Your task to perform on an android device: toggle improve location accuracy Image 0: 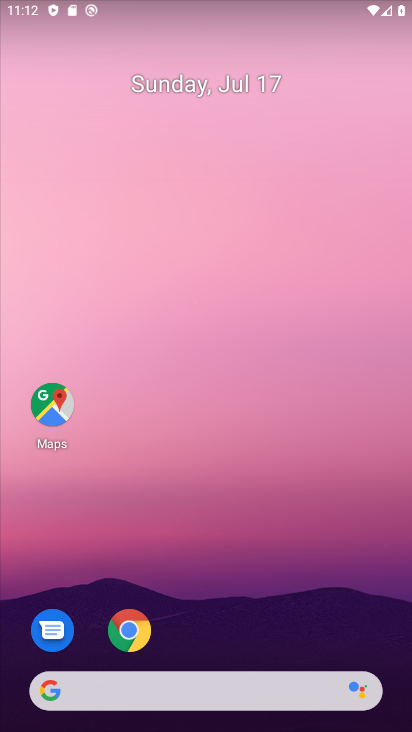
Step 0: drag from (206, 649) to (206, 12)
Your task to perform on an android device: toggle improve location accuracy Image 1: 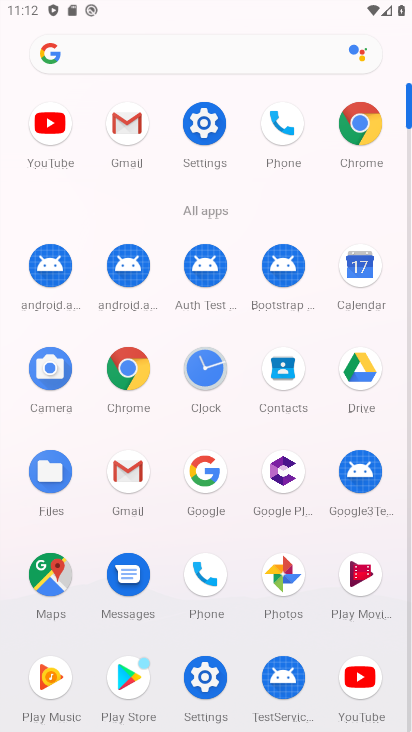
Step 1: click (212, 681)
Your task to perform on an android device: toggle improve location accuracy Image 2: 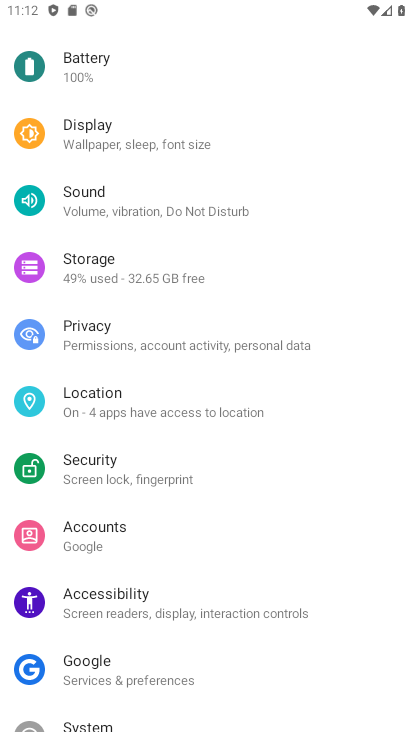
Step 2: click (136, 402)
Your task to perform on an android device: toggle improve location accuracy Image 3: 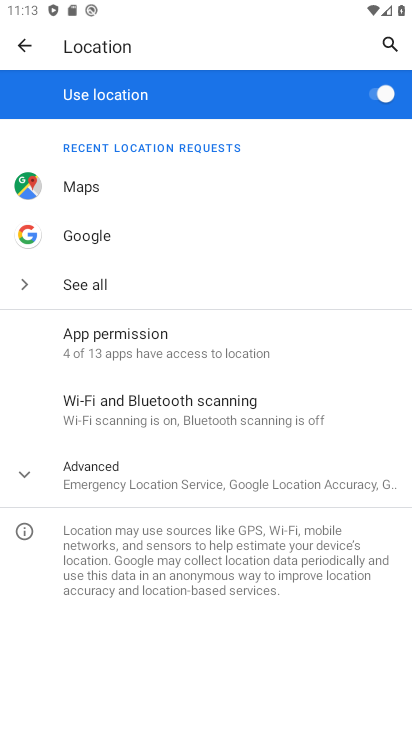
Step 3: click (88, 482)
Your task to perform on an android device: toggle improve location accuracy Image 4: 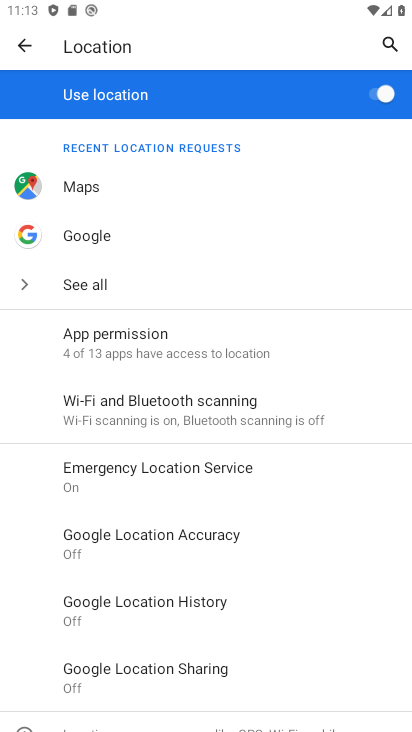
Step 4: click (150, 534)
Your task to perform on an android device: toggle improve location accuracy Image 5: 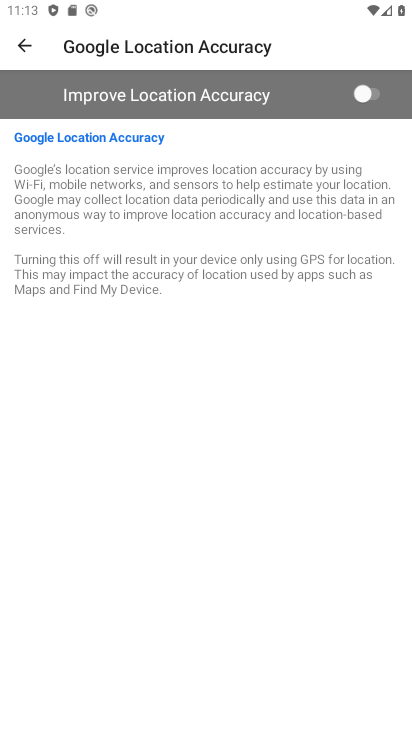
Step 5: click (375, 93)
Your task to perform on an android device: toggle improve location accuracy Image 6: 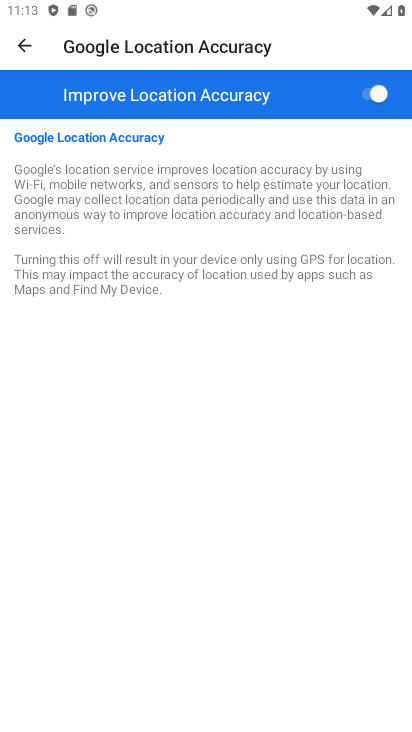
Step 6: task complete